Your task to perform on an android device: open the mobile data screen to see how much data has been used Image 0: 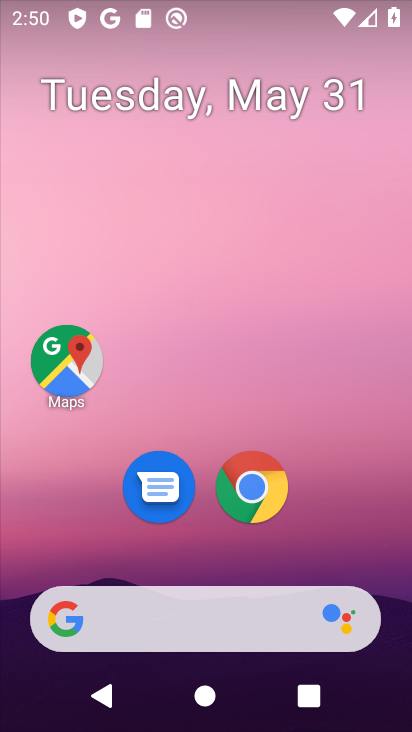
Step 0: drag from (97, 574) to (228, 34)
Your task to perform on an android device: open the mobile data screen to see how much data has been used Image 1: 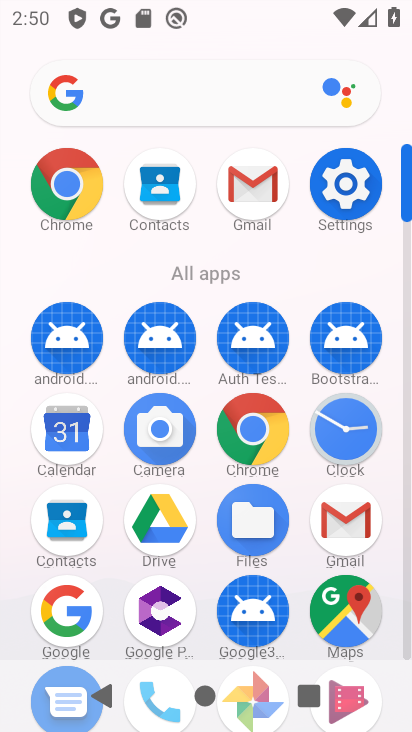
Step 1: drag from (133, 519) to (228, 255)
Your task to perform on an android device: open the mobile data screen to see how much data has been used Image 2: 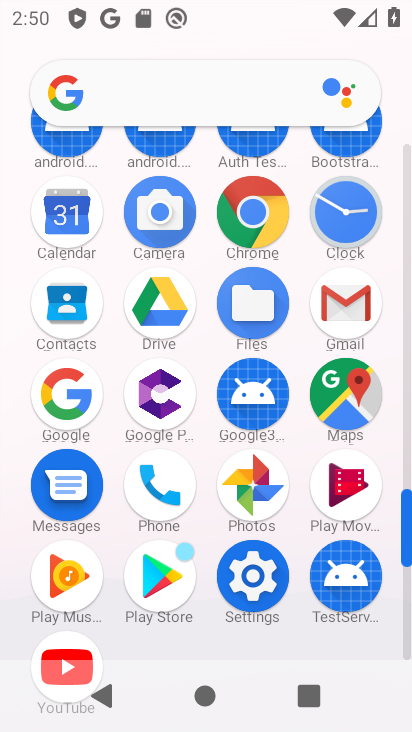
Step 2: click (244, 586)
Your task to perform on an android device: open the mobile data screen to see how much data has been used Image 3: 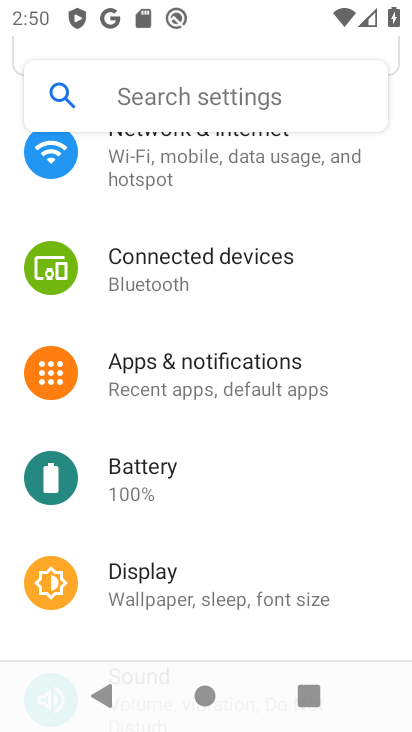
Step 3: click (198, 153)
Your task to perform on an android device: open the mobile data screen to see how much data has been used Image 4: 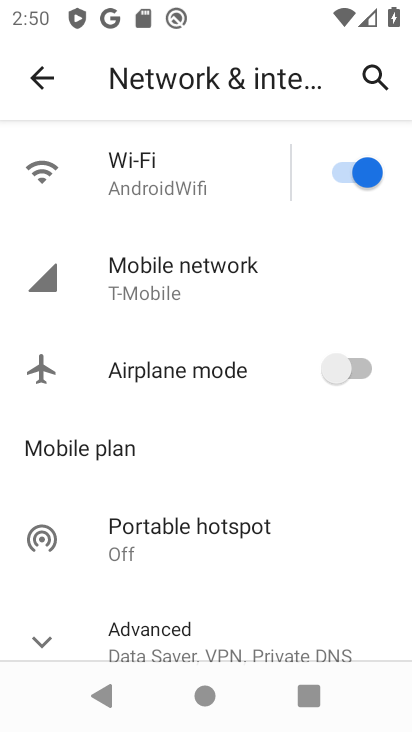
Step 4: click (285, 294)
Your task to perform on an android device: open the mobile data screen to see how much data has been used Image 5: 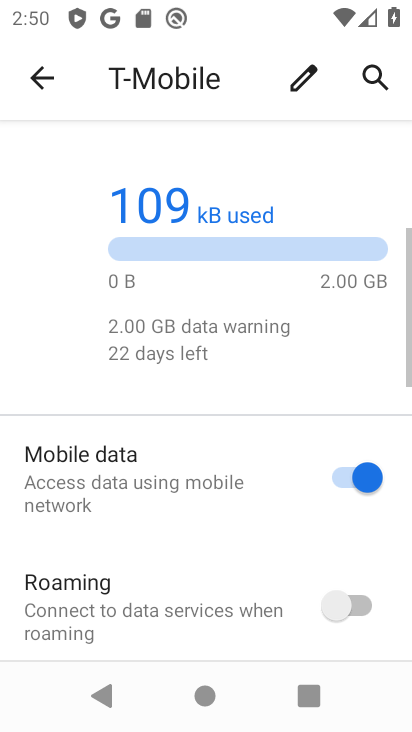
Step 5: task complete